Your task to perform on an android device: What's on my calendar today? Image 0: 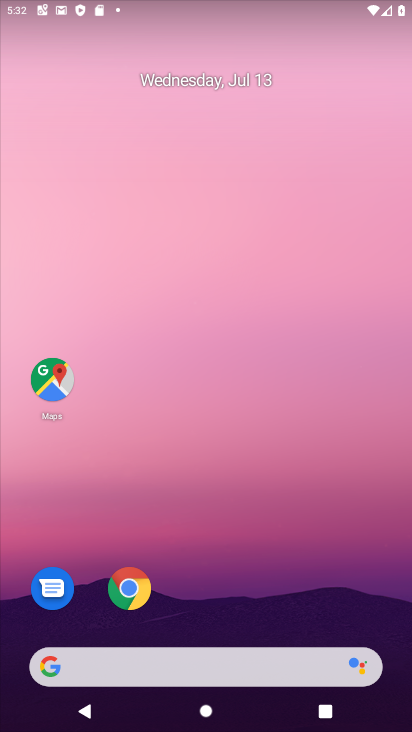
Step 0: drag from (221, 201) to (238, 78)
Your task to perform on an android device: What's on my calendar today? Image 1: 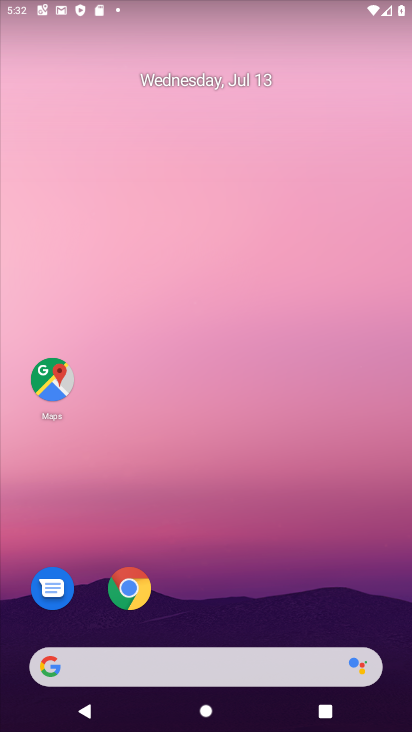
Step 1: drag from (229, 548) to (253, 202)
Your task to perform on an android device: What's on my calendar today? Image 2: 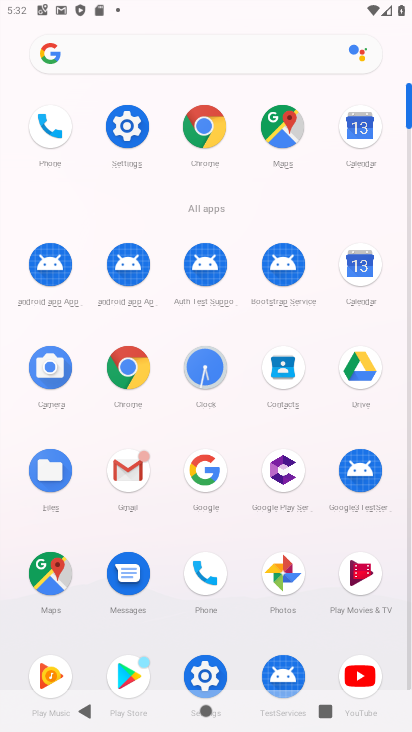
Step 2: drag from (123, 596) to (369, 323)
Your task to perform on an android device: What's on my calendar today? Image 3: 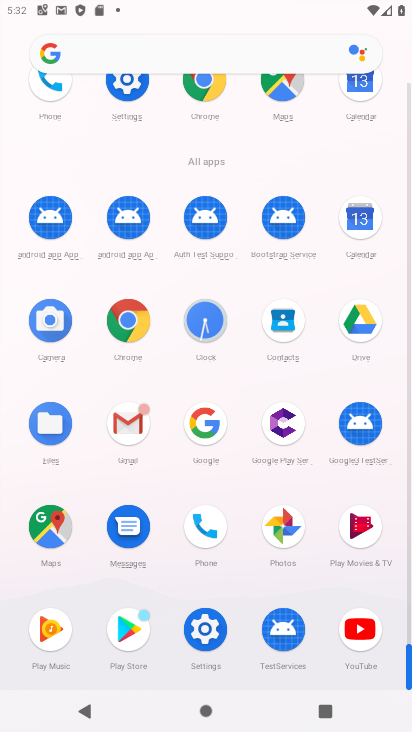
Step 3: click (360, 212)
Your task to perform on an android device: What's on my calendar today? Image 4: 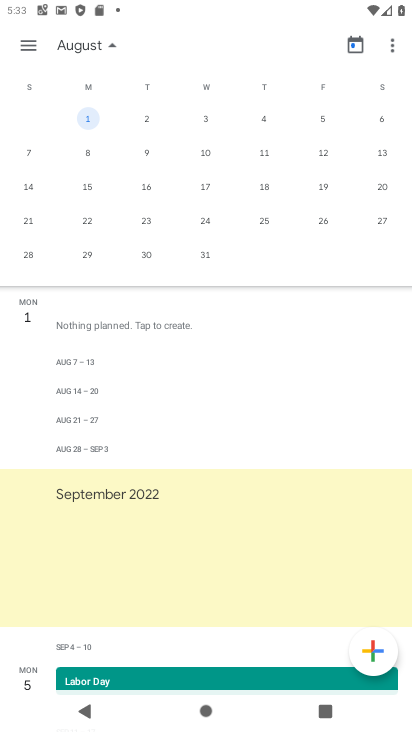
Step 4: click (97, 43)
Your task to perform on an android device: What's on my calendar today? Image 5: 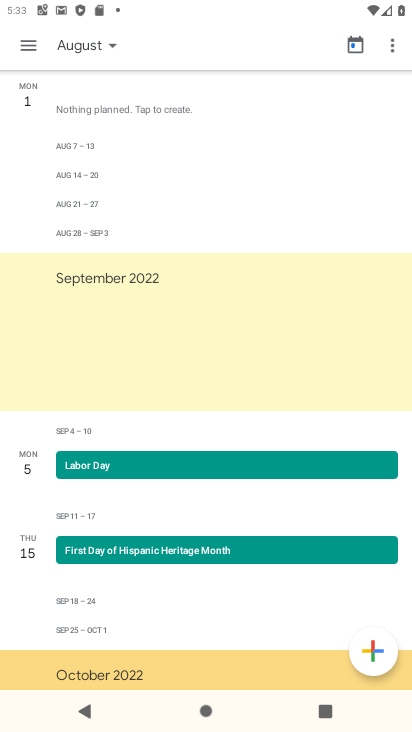
Step 5: click (88, 45)
Your task to perform on an android device: What's on my calendar today? Image 6: 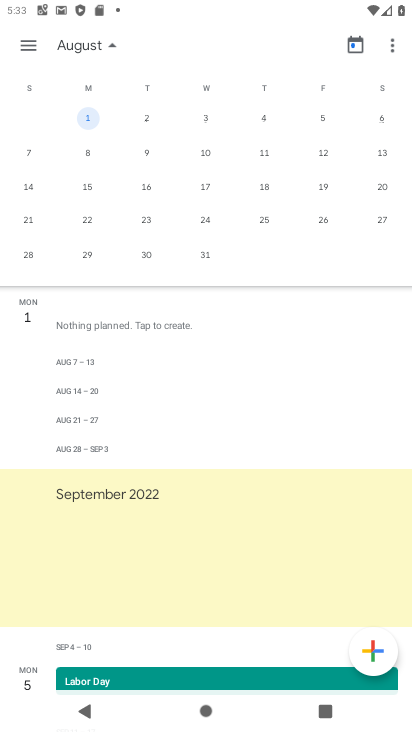
Step 6: task complete